Your task to perform on an android device: Search for "sony triple a" on bestbuy, select the first entry, add it to the cart, then select checkout. Image 0: 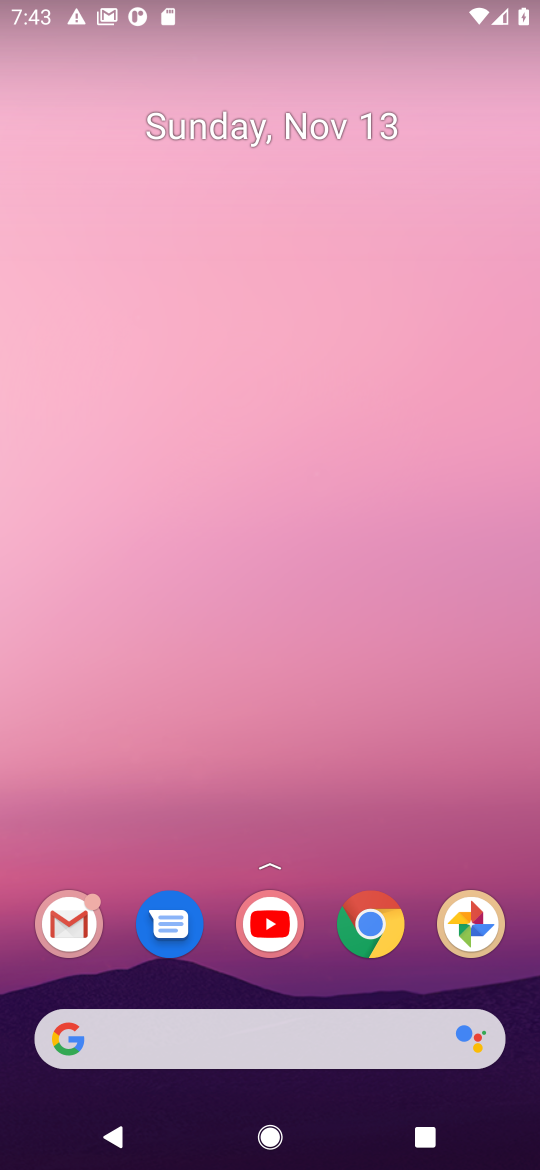
Step 0: click (393, 929)
Your task to perform on an android device: Search for "sony triple a" on bestbuy, select the first entry, add it to the cart, then select checkout. Image 1: 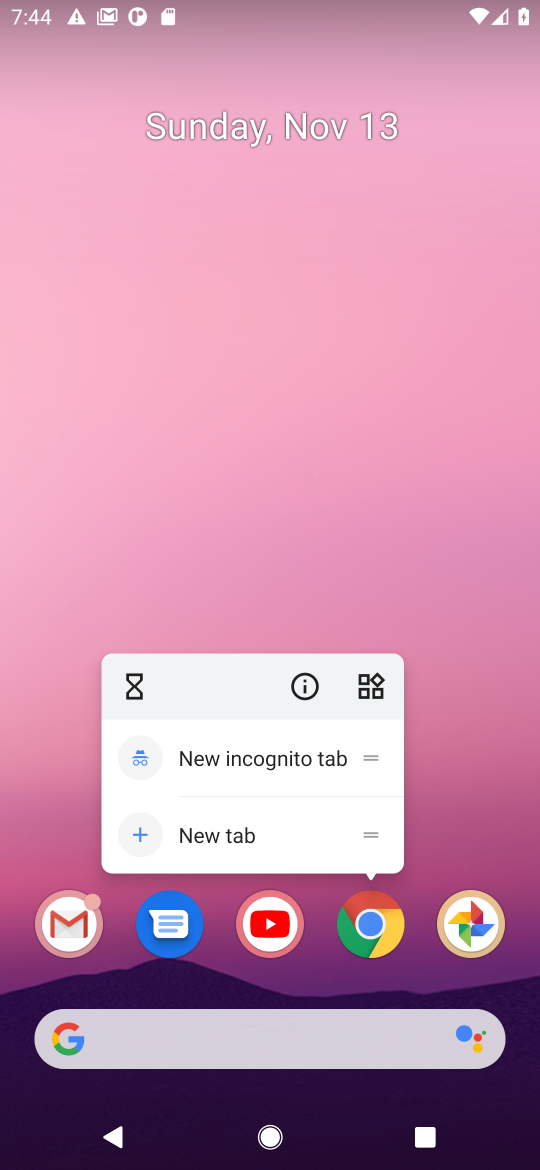
Step 1: click (384, 947)
Your task to perform on an android device: Search for "sony triple a" on bestbuy, select the first entry, add it to the cart, then select checkout. Image 2: 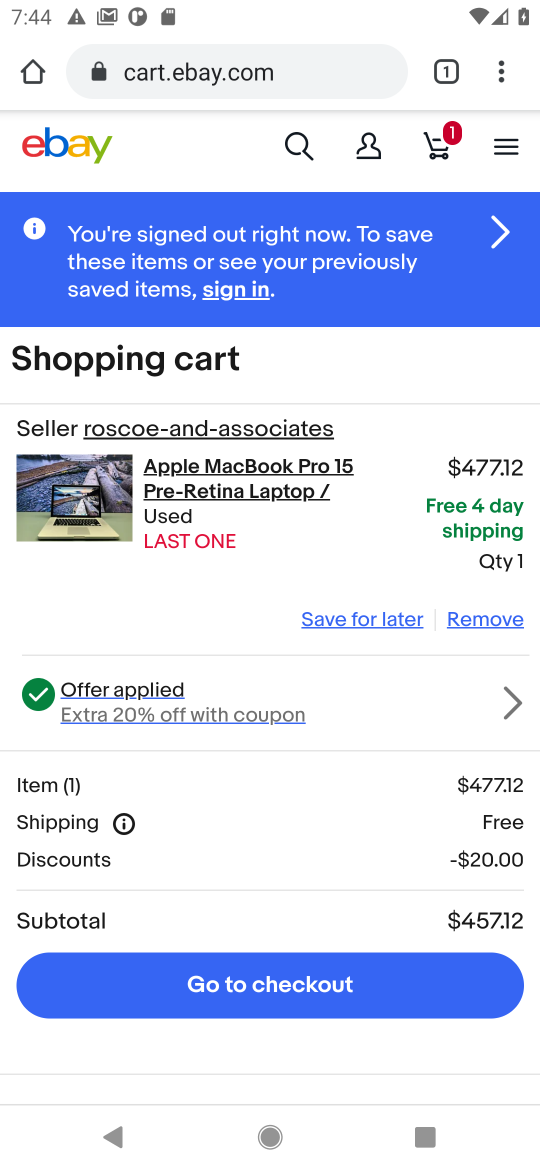
Step 2: click (356, 69)
Your task to perform on an android device: Search for "sony triple a" on bestbuy, select the first entry, add it to the cart, then select checkout. Image 3: 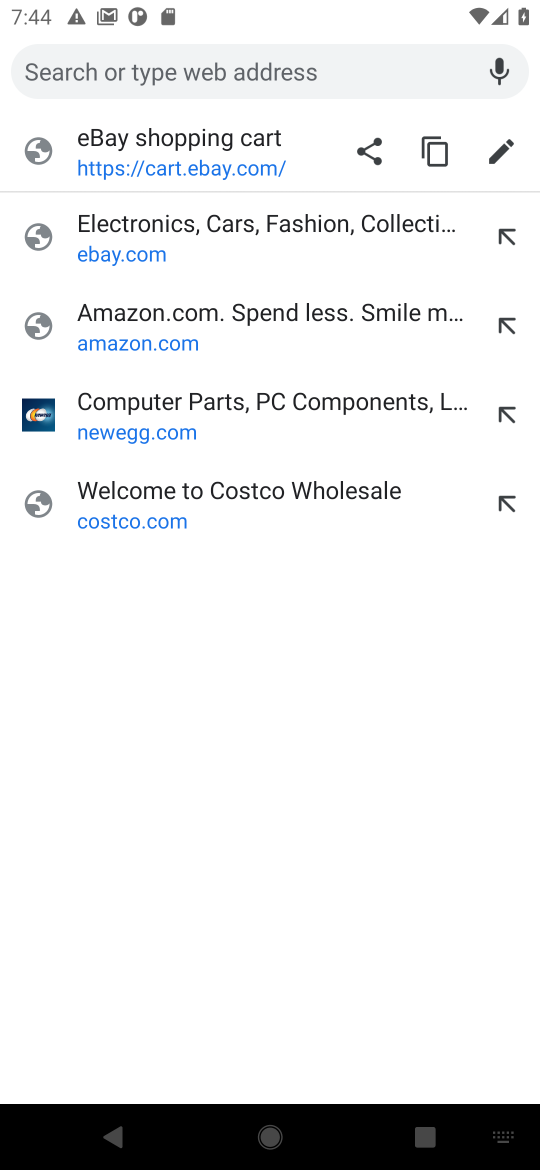
Step 3: type "bestbuy"
Your task to perform on an android device: Search for "sony triple a" on bestbuy, select the first entry, add it to the cart, then select checkout. Image 4: 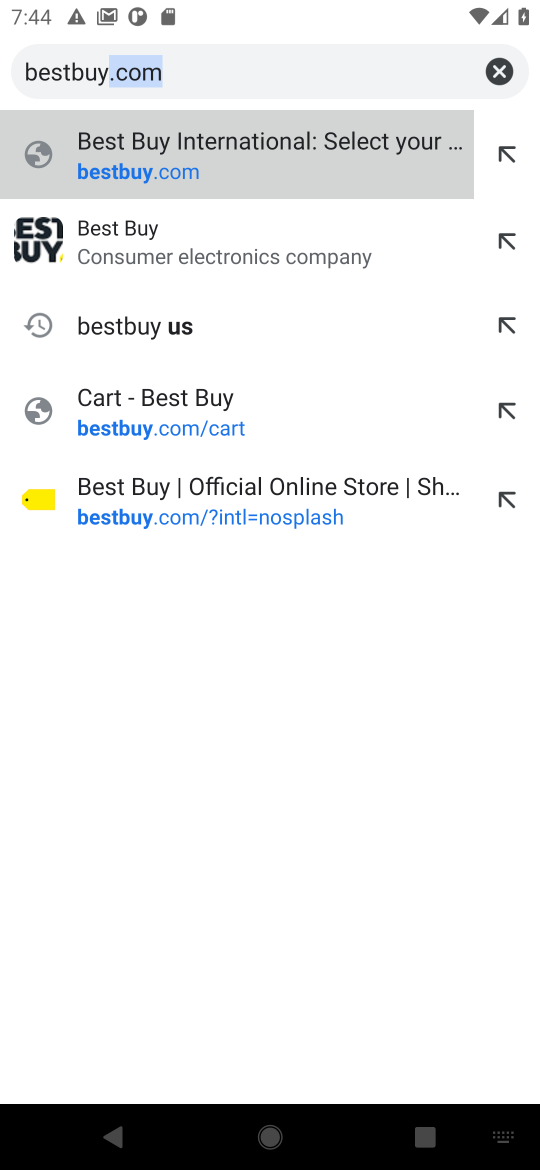
Step 4: click (184, 176)
Your task to perform on an android device: Search for "sony triple a" on bestbuy, select the first entry, add it to the cart, then select checkout. Image 5: 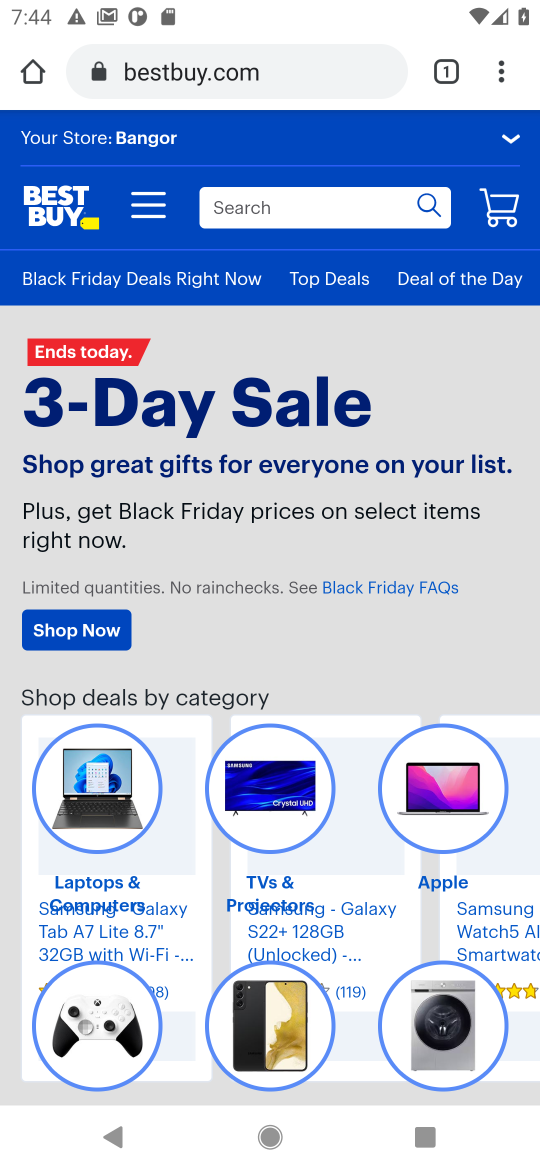
Step 5: click (319, 215)
Your task to perform on an android device: Search for "sony triple a" on bestbuy, select the first entry, add it to the cart, then select checkout. Image 6: 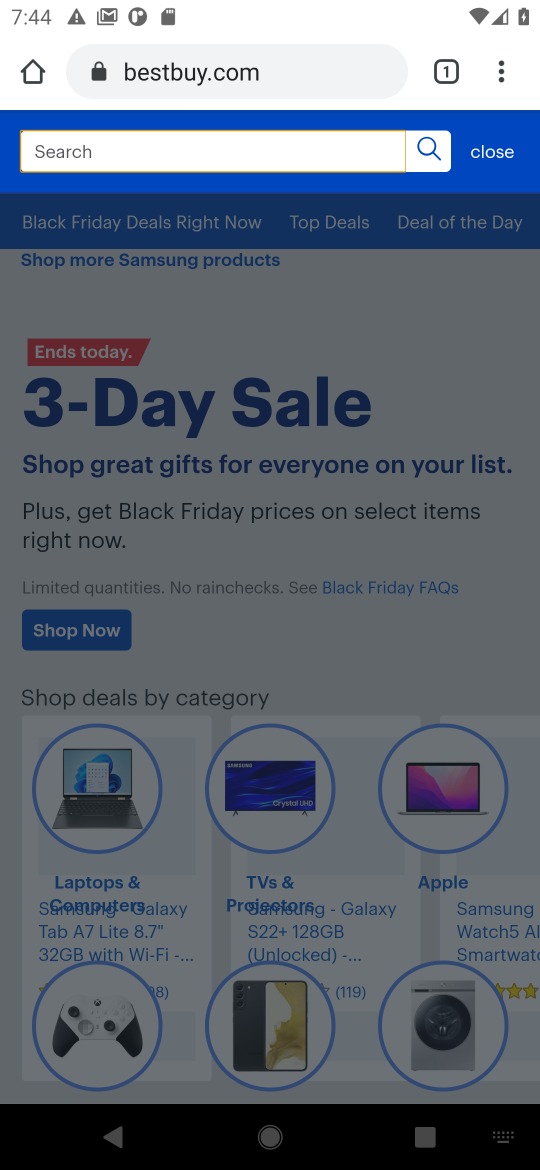
Step 6: type "sony triple a"
Your task to perform on an android device: Search for "sony triple a" on bestbuy, select the first entry, add it to the cart, then select checkout. Image 7: 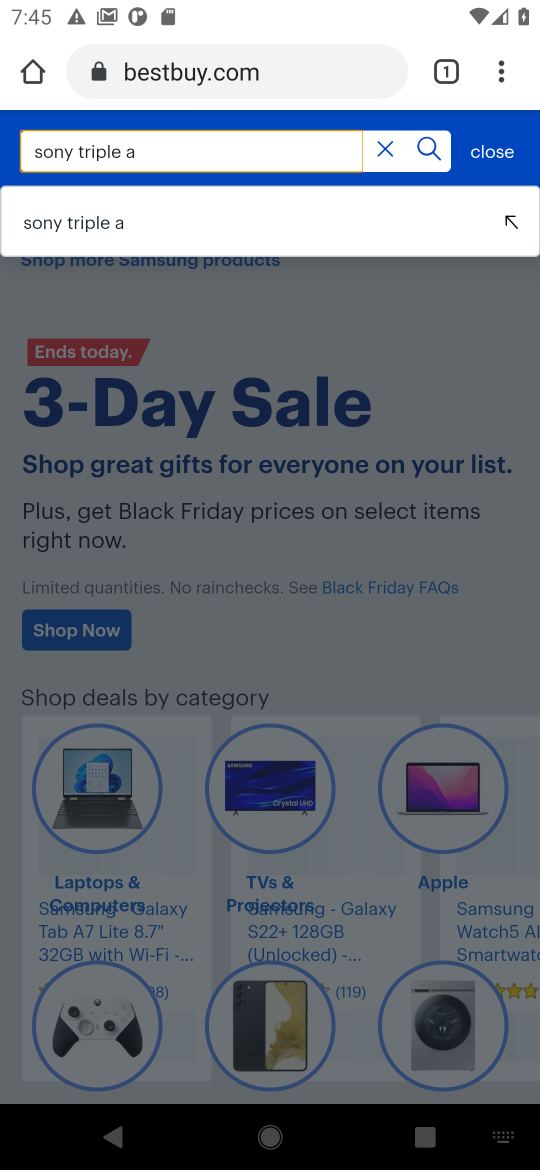
Step 7: click (119, 223)
Your task to perform on an android device: Search for "sony triple a" on bestbuy, select the first entry, add it to the cart, then select checkout. Image 8: 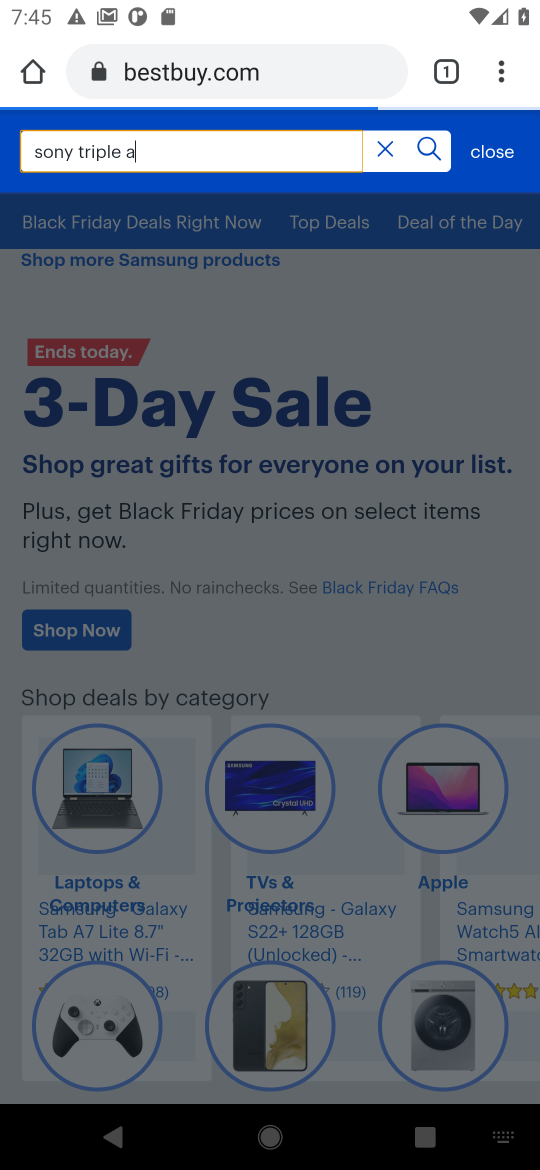
Step 8: click (439, 150)
Your task to perform on an android device: Search for "sony triple a" on bestbuy, select the first entry, add it to the cart, then select checkout. Image 9: 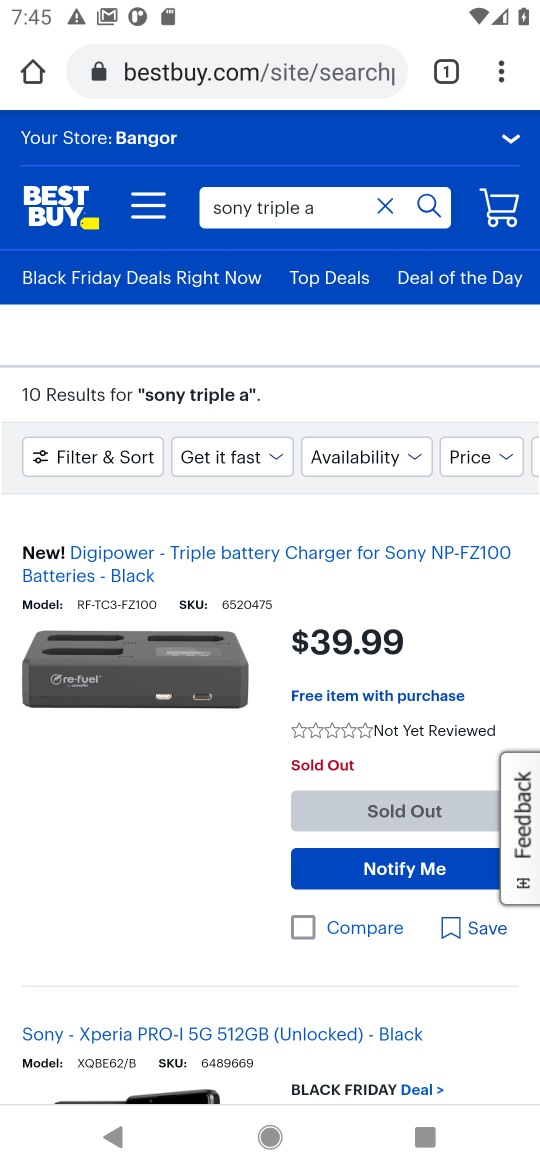
Step 9: task complete